Your task to perform on an android device: Empty the shopping cart on target.com. Add energizer triple a to the cart on target.com Image 0: 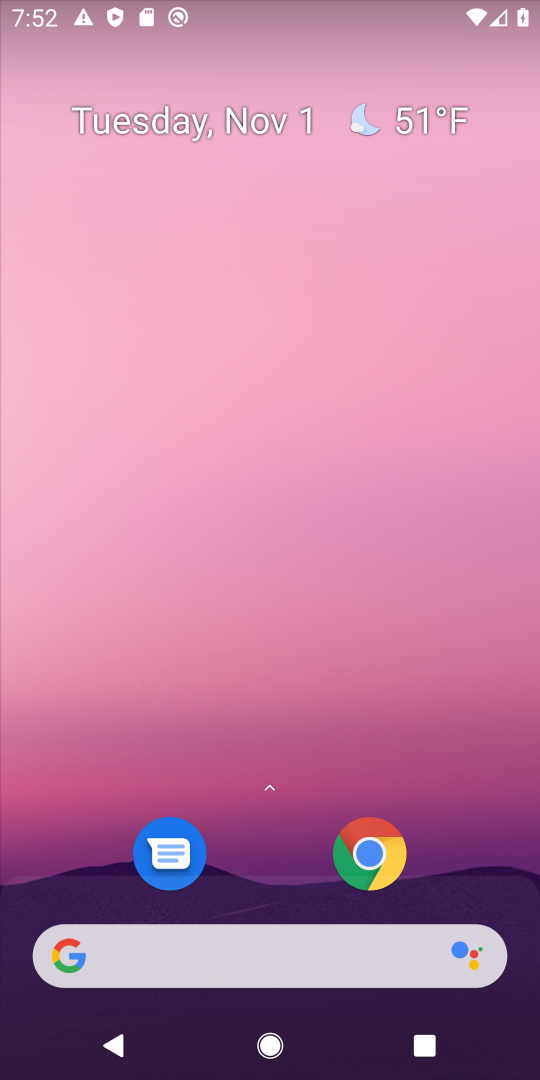
Step 0: click (358, 979)
Your task to perform on an android device: Empty the shopping cart on target.com. Add energizer triple a to the cart on target.com Image 1: 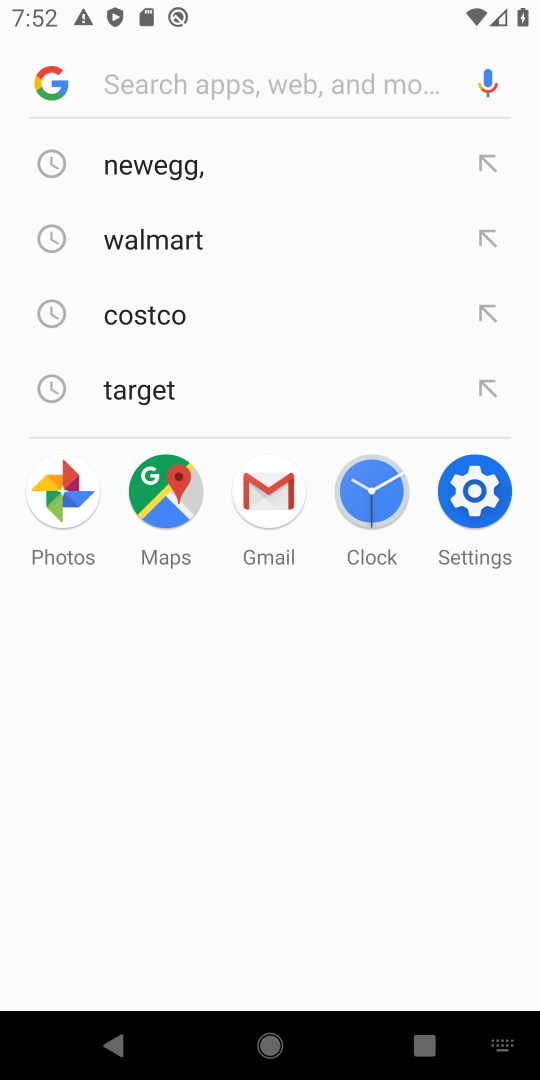
Step 1: click (275, 174)
Your task to perform on an android device: Empty the shopping cart on target.com. Add energizer triple a to the cart on target.com Image 2: 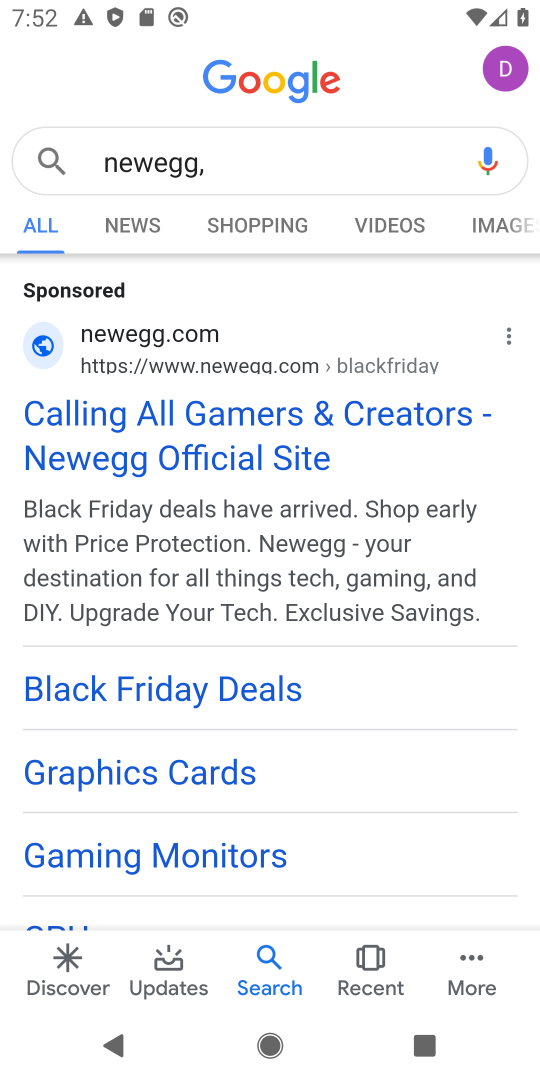
Step 2: click (228, 702)
Your task to perform on an android device: Empty the shopping cart on target.com. Add energizer triple a to the cart on target.com Image 3: 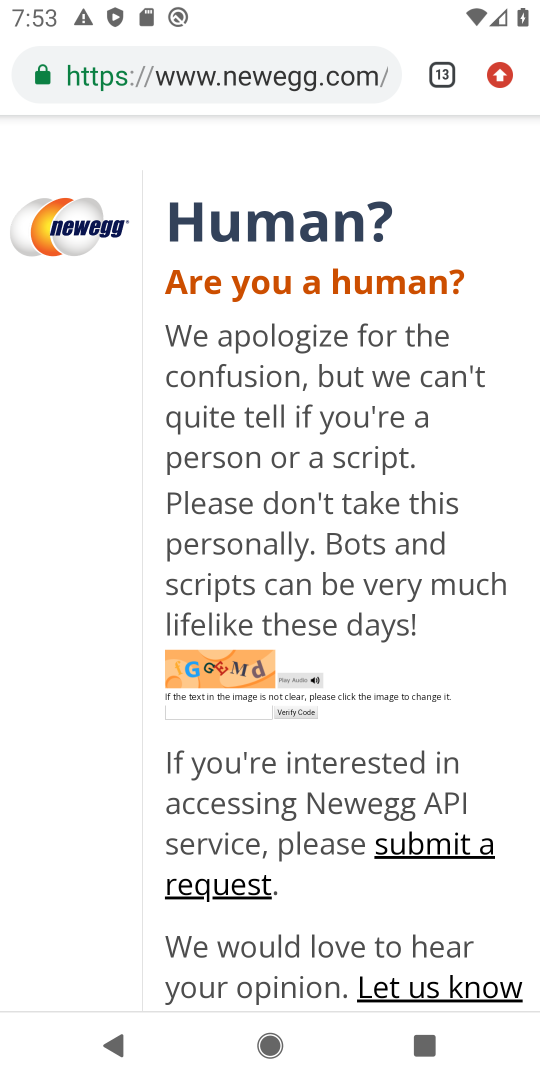
Step 3: drag from (338, 905) to (298, 517)
Your task to perform on an android device: Empty the shopping cart on target.com. Add energizer triple a to the cart on target.com Image 4: 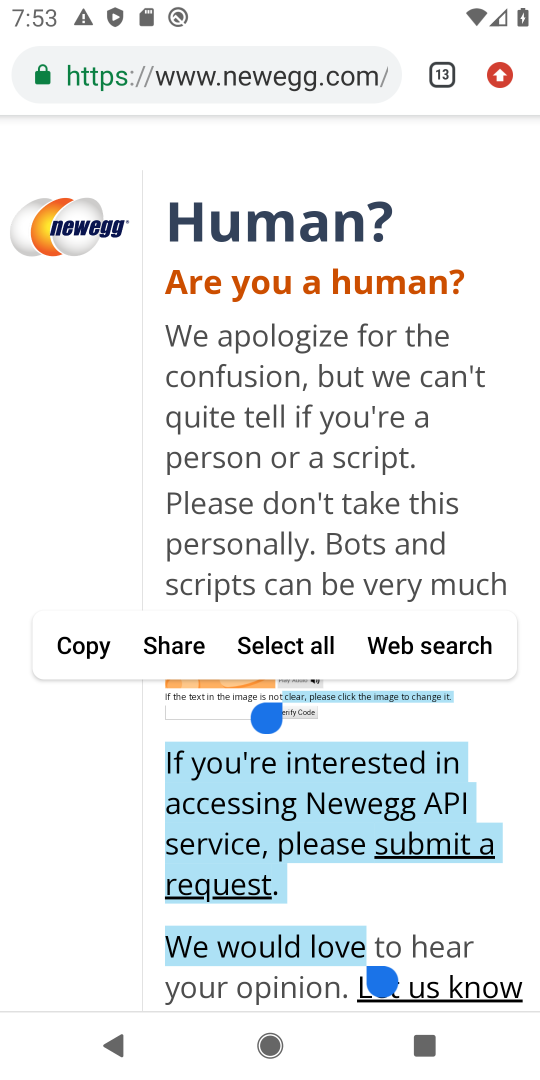
Step 4: click (106, 790)
Your task to perform on an android device: Empty the shopping cart on target.com. Add energizer triple a to the cart on target.com Image 5: 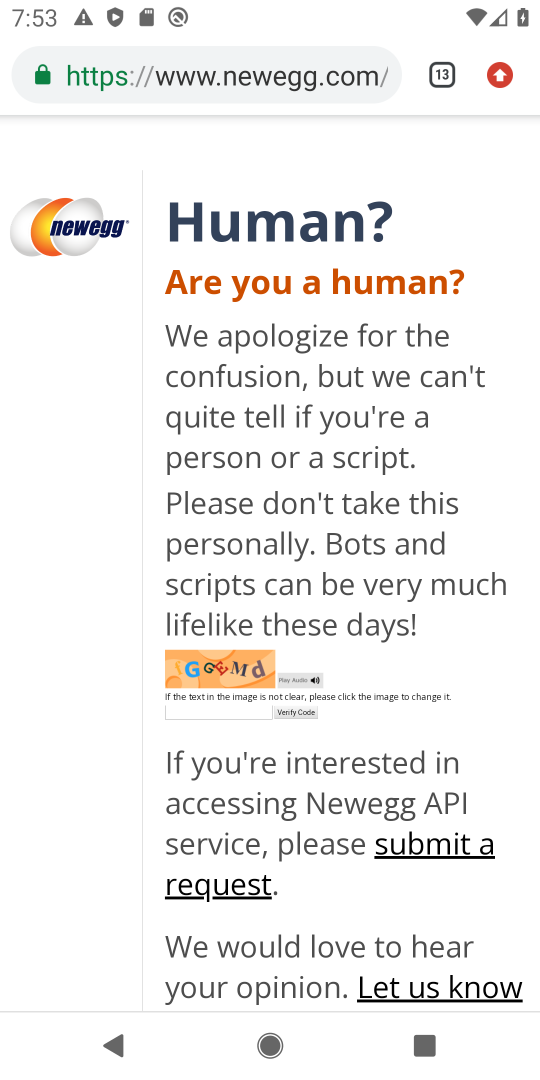
Step 5: click (106, 790)
Your task to perform on an android device: Empty the shopping cart on target.com. Add energizer triple a to the cart on target.com Image 6: 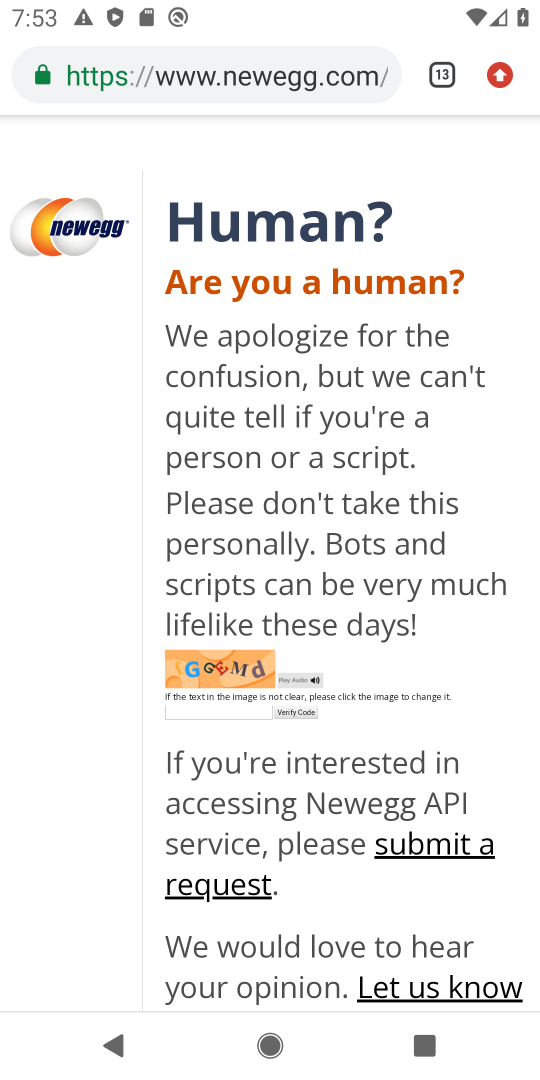
Step 6: click (221, 714)
Your task to perform on an android device: Empty the shopping cart on target.com. Add energizer triple a to the cart on target.com Image 7: 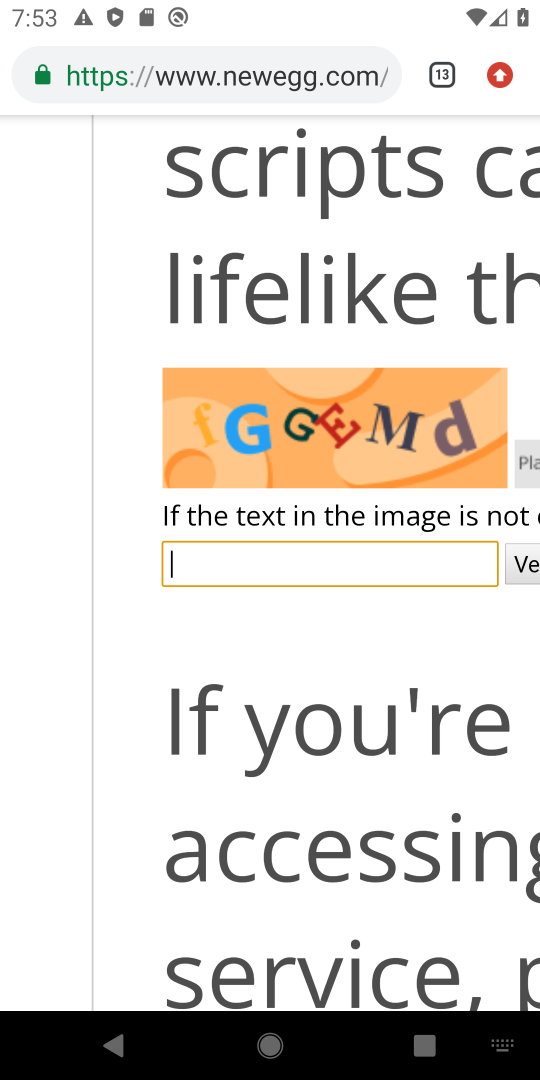
Step 7: type "GGEMd"
Your task to perform on an android device: Empty the shopping cart on target.com. Add energizer triple a to the cart on target.com Image 8: 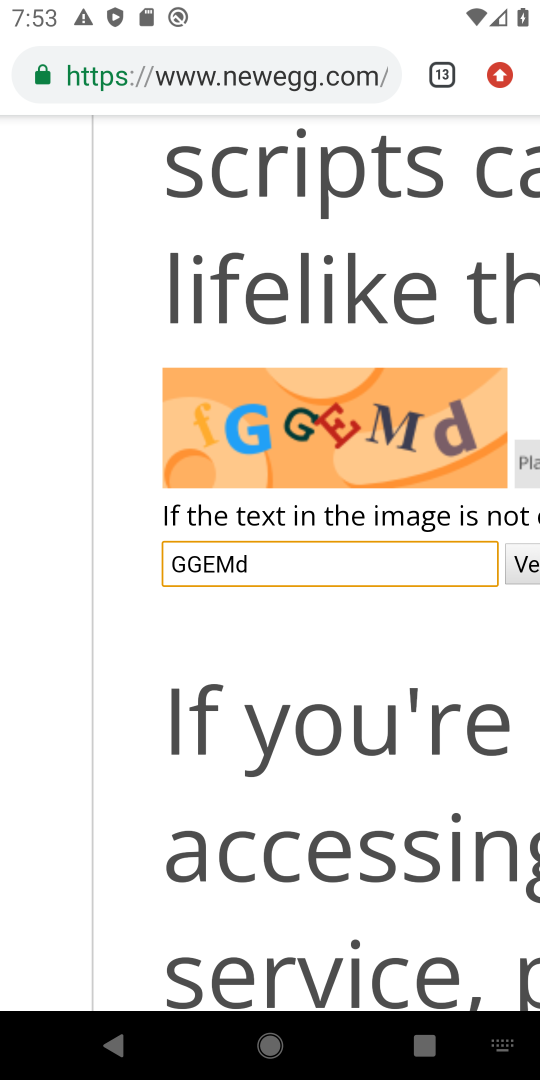
Step 8: click (517, 558)
Your task to perform on an android device: Empty the shopping cart on target.com. Add energizer triple a to the cart on target.com Image 9: 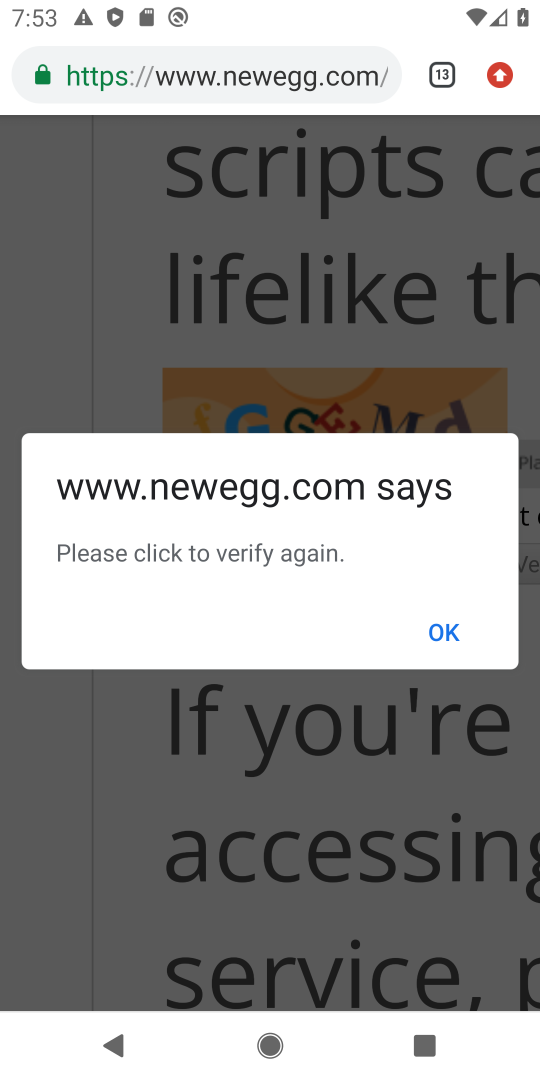
Step 9: click (441, 642)
Your task to perform on an android device: Empty the shopping cart on target.com. Add energizer triple a to the cart on target.com Image 10: 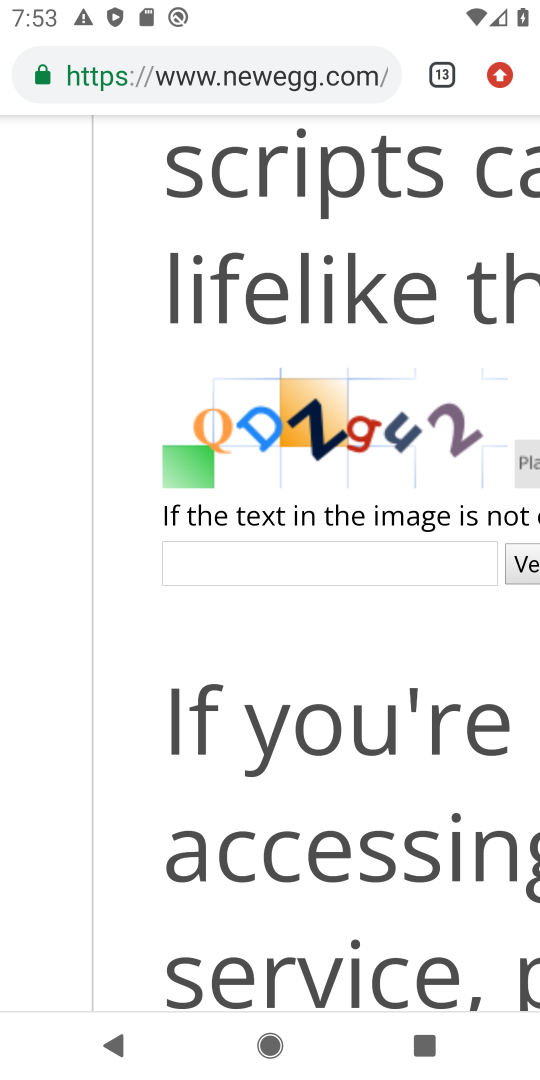
Step 10: task complete